Your task to perform on an android device: turn notification dots on Image 0: 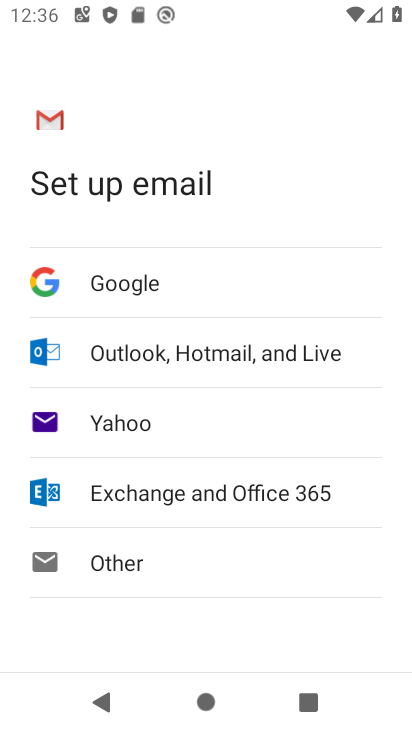
Step 0: press home button
Your task to perform on an android device: turn notification dots on Image 1: 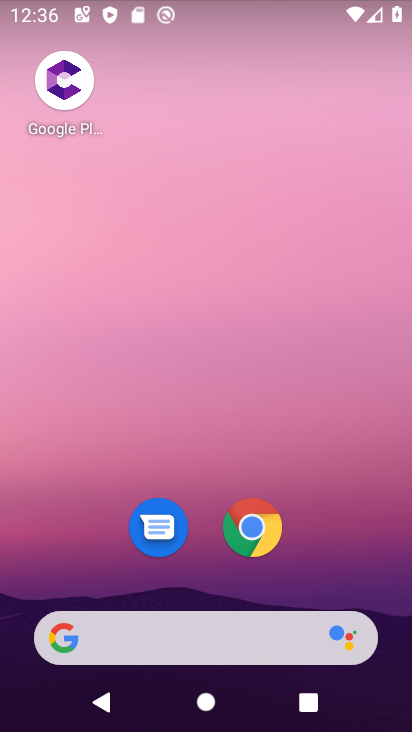
Step 1: drag from (327, 559) to (331, 106)
Your task to perform on an android device: turn notification dots on Image 2: 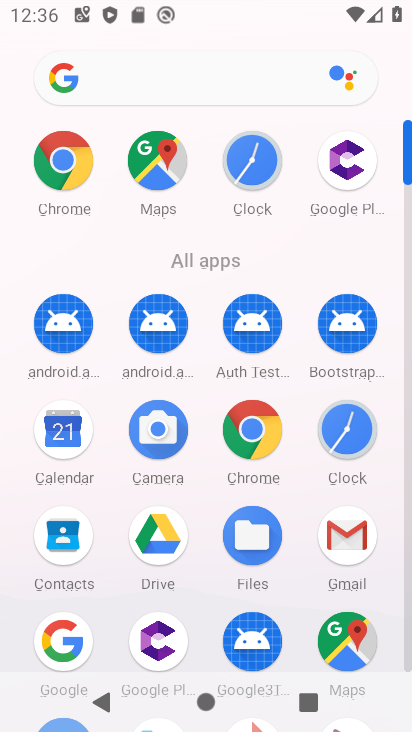
Step 2: drag from (194, 575) to (217, 228)
Your task to perform on an android device: turn notification dots on Image 3: 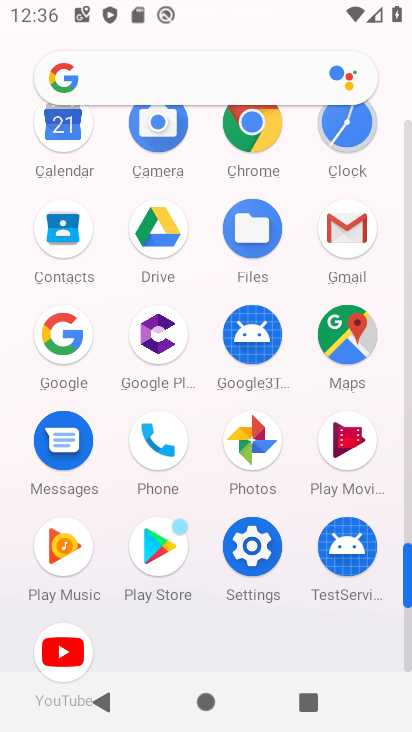
Step 3: click (263, 557)
Your task to perform on an android device: turn notification dots on Image 4: 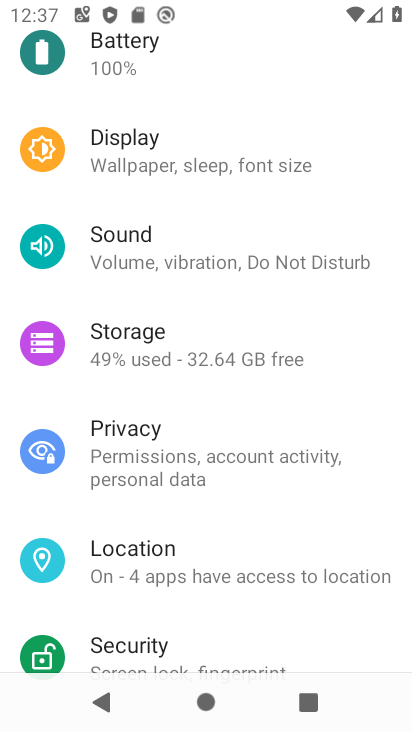
Step 4: drag from (381, 310) to (373, 504)
Your task to perform on an android device: turn notification dots on Image 5: 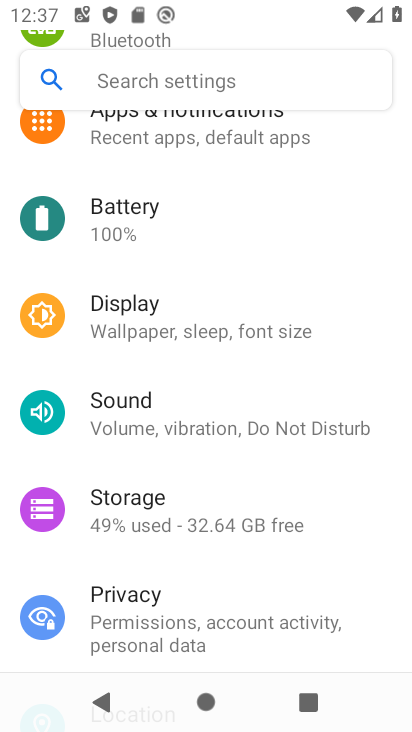
Step 5: drag from (385, 318) to (388, 497)
Your task to perform on an android device: turn notification dots on Image 6: 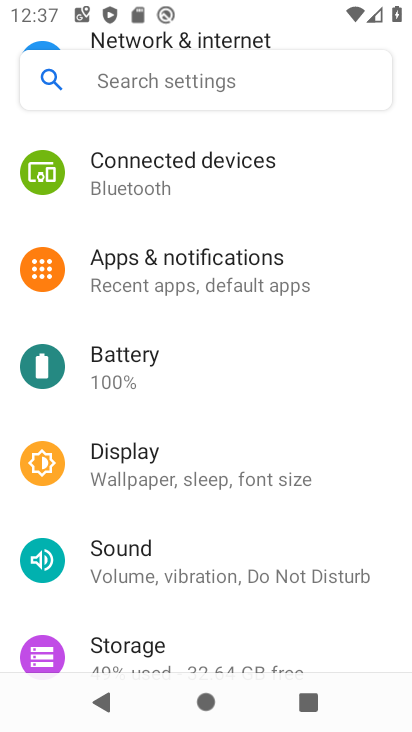
Step 6: drag from (382, 261) to (376, 440)
Your task to perform on an android device: turn notification dots on Image 7: 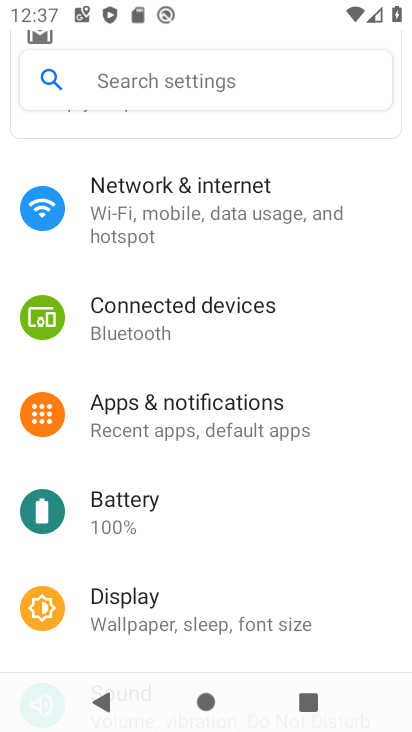
Step 7: drag from (383, 284) to (369, 483)
Your task to perform on an android device: turn notification dots on Image 8: 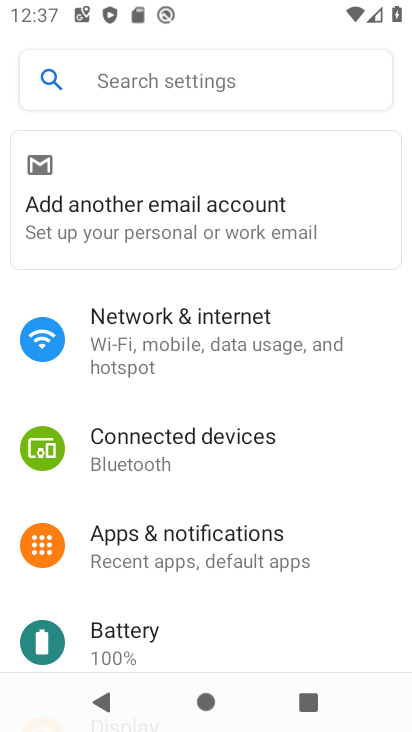
Step 8: drag from (369, 571) to (377, 403)
Your task to perform on an android device: turn notification dots on Image 9: 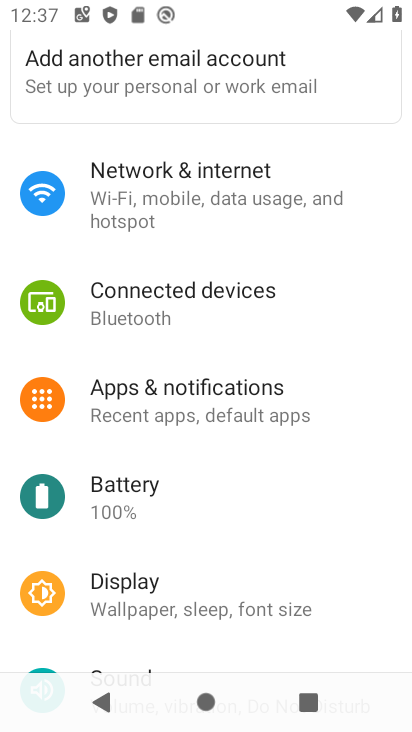
Step 9: click (258, 385)
Your task to perform on an android device: turn notification dots on Image 10: 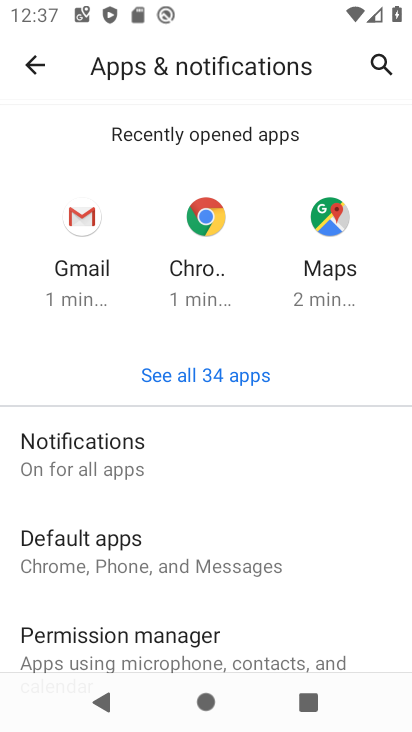
Step 10: drag from (350, 578) to (361, 334)
Your task to perform on an android device: turn notification dots on Image 11: 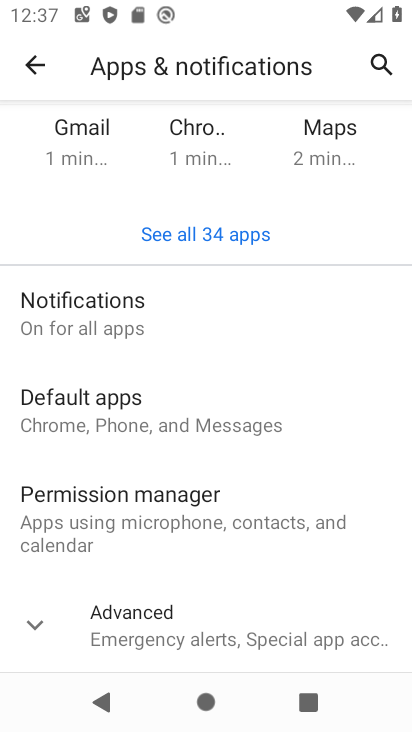
Step 11: click (99, 315)
Your task to perform on an android device: turn notification dots on Image 12: 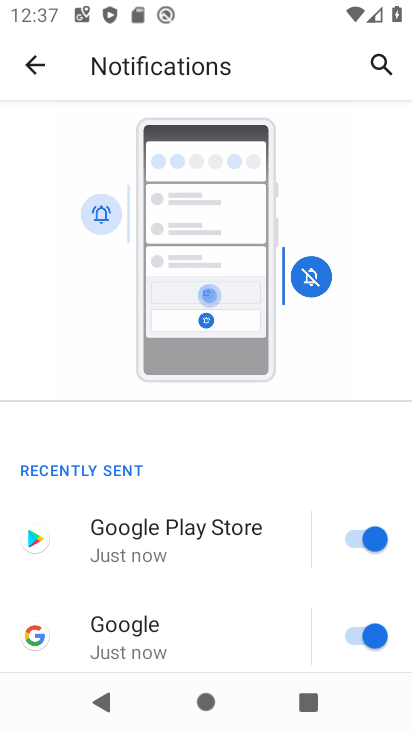
Step 12: drag from (272, 600) to (261, 359)
Your task to perform on an android device: turn notification dots on Image 13: 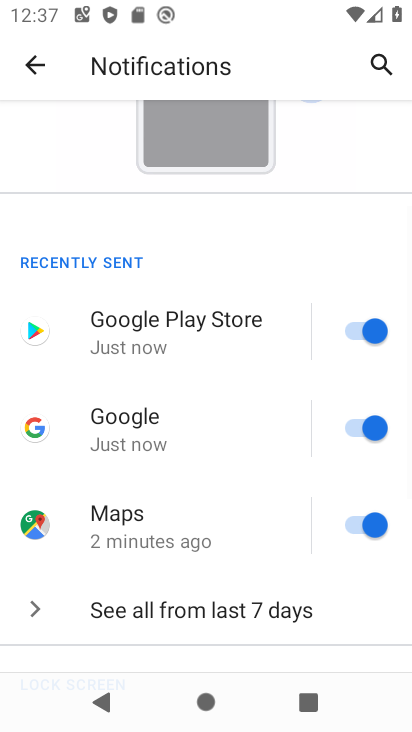
Step 13: drag from (276, 535) to (294, 272)
Your task to perform on an android device: turn notification dots on Image 14: 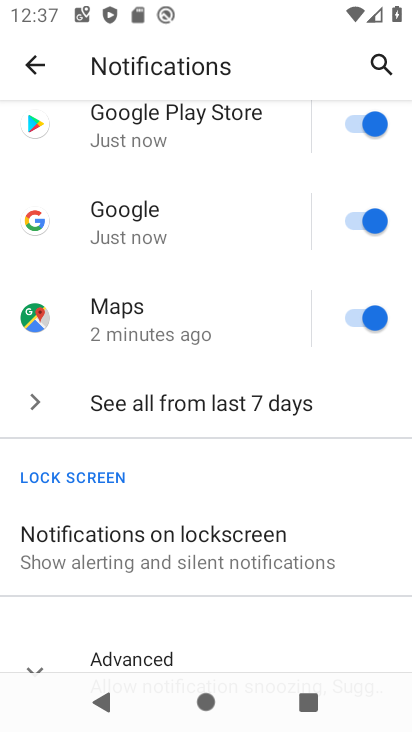
Step 14: drag from (276, 593) to (289, 336)
Your task to perform on an android device: turn notification dots on Image 15: 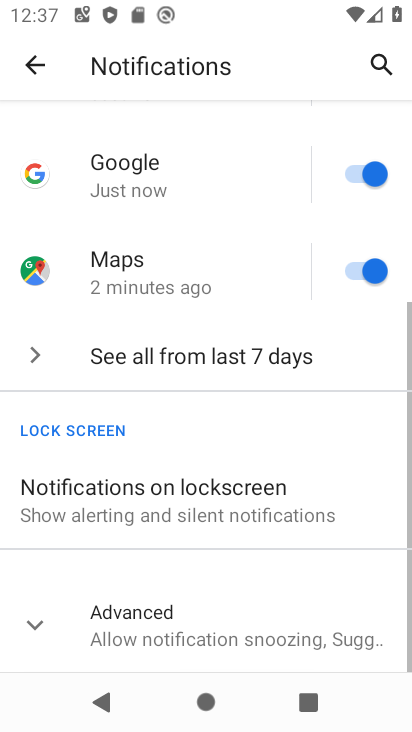
Step 15: click (223, 607)
Your task to perform on an android device: turn notification dots on Image 16: 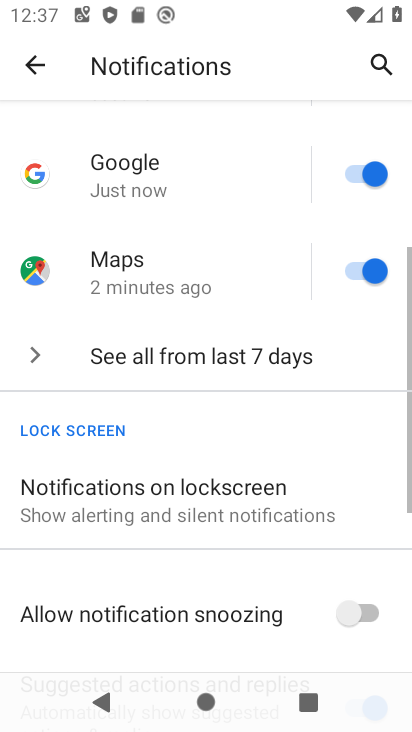
Step 16: task complete